Your task to perform on an android device: change the clock display to analog Image 0: 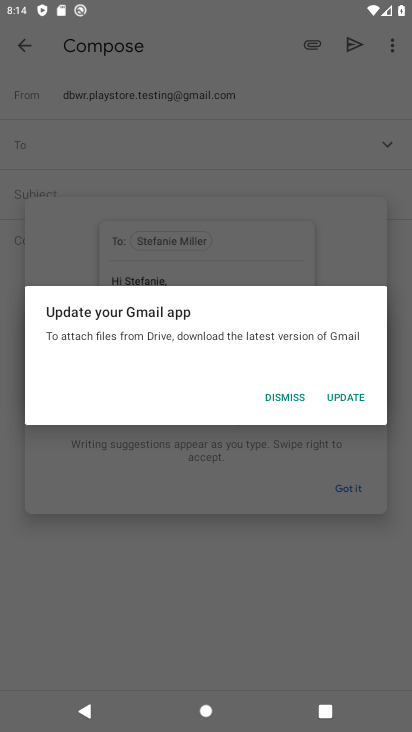
Step 0: press home button
Your task to perform on an android device: change the clock display to analog Image 1: 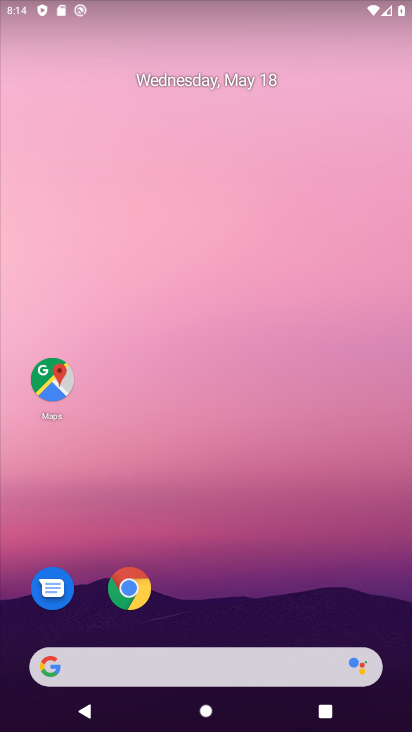
Step 1: drag from (325, 616) to (302, 33)
Your task to perform on an android device: change the clock display to analog Image 2: 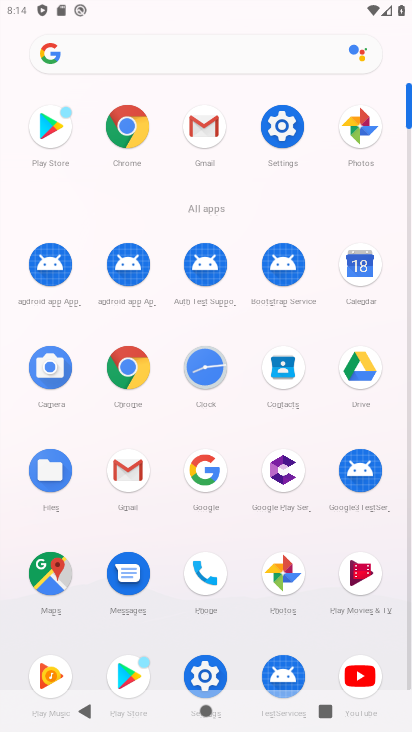
Step 2: click (204, 371)
Your task to perform on an android device: change the clock display to analog Image 3: 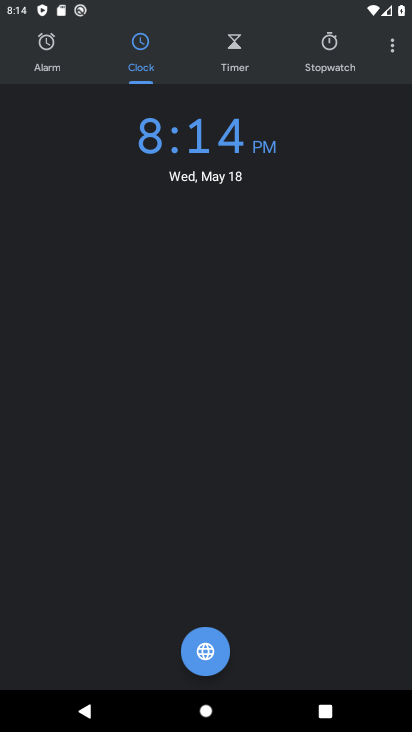
Step 3: click (391, 47)
Your task to perform on an android device: change the clock display to analog Image 4: 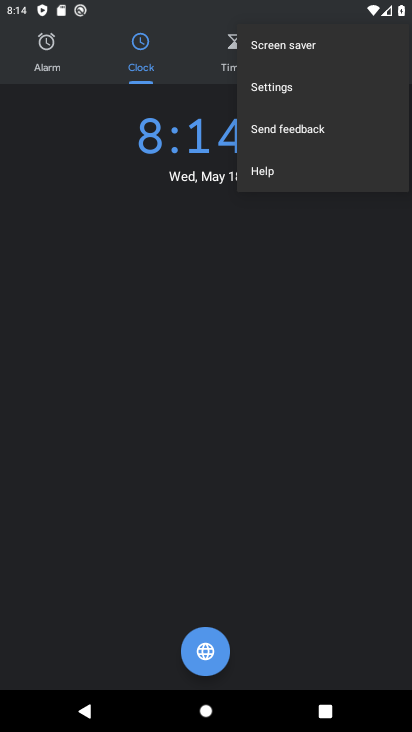
Step 4: click (301, 92)
Your task to perform on an android device: change the clock display to analog Image 5: 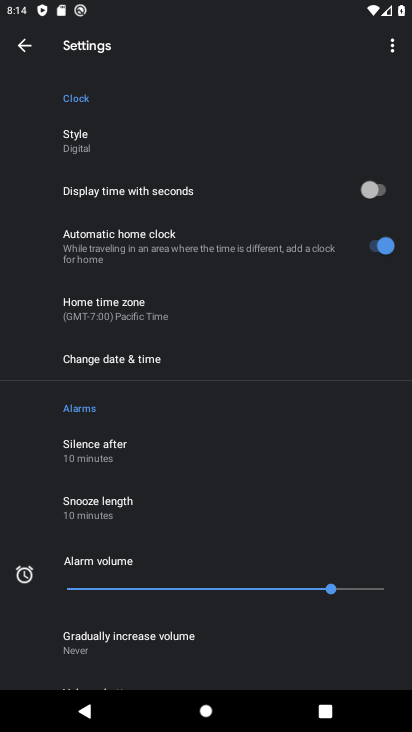
Step 5: click (73, 140)
Your task to perform on an android device: change the clock display to analog Image 6: 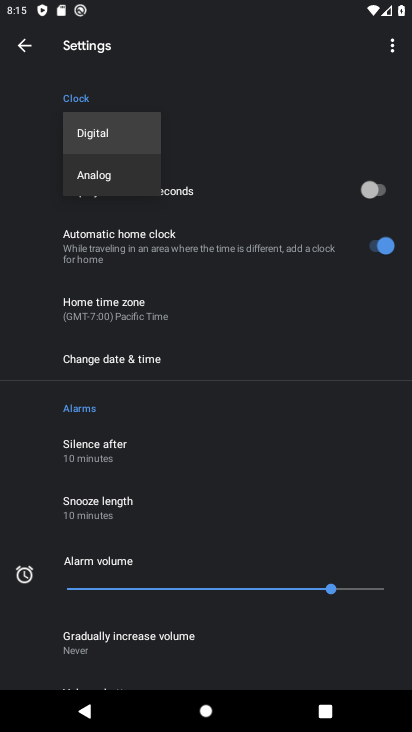
Step 6: click (92, 176)
Your task to perform on an android device: change the clock display to analog Image 7: 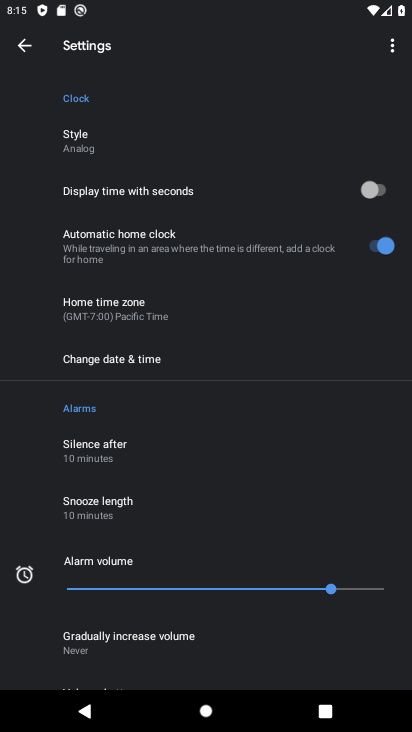
Step 7: task complete